Your task to perform on an android device: change notification settings in the gmail app Image 0: 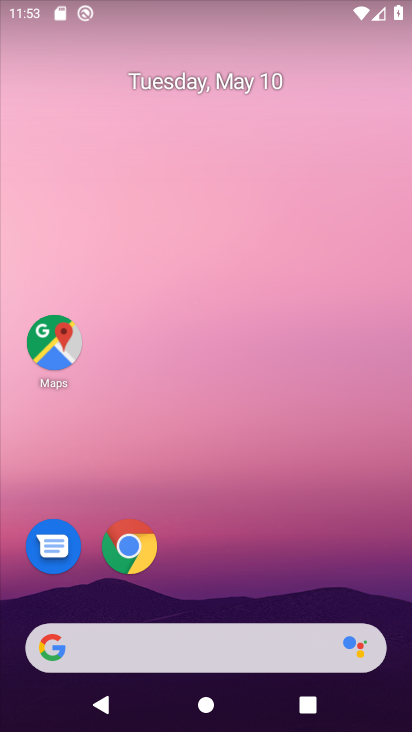
Step 0: drag from (251, 546) to (284, 268)
Your task to perform on an android device: change notification settings in the gmail app Image 1: 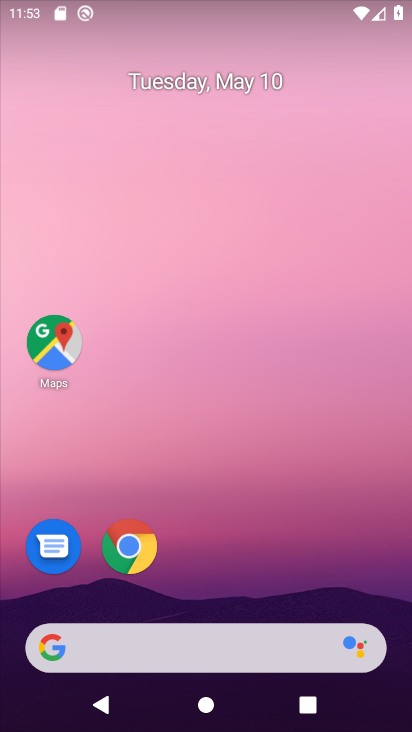
Step 1: drag from (222, 596) to (226, 296)
Your task to perform on an android device: change notification settings in the gmail app Image 2: 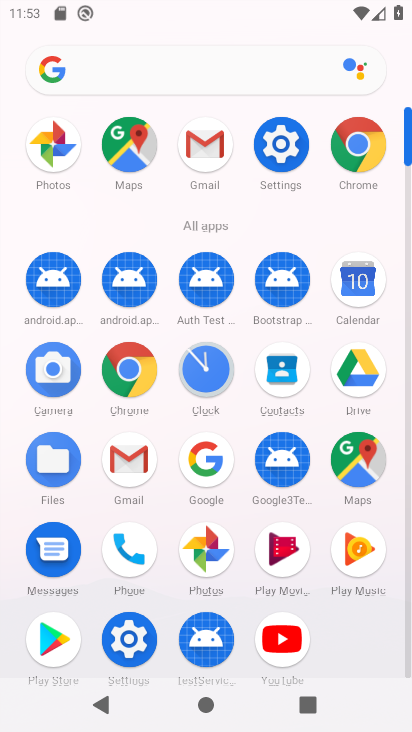
Step 2: click (196, 140)
Your task to perform on an android device: change notification settings in the gmail app Image 3: 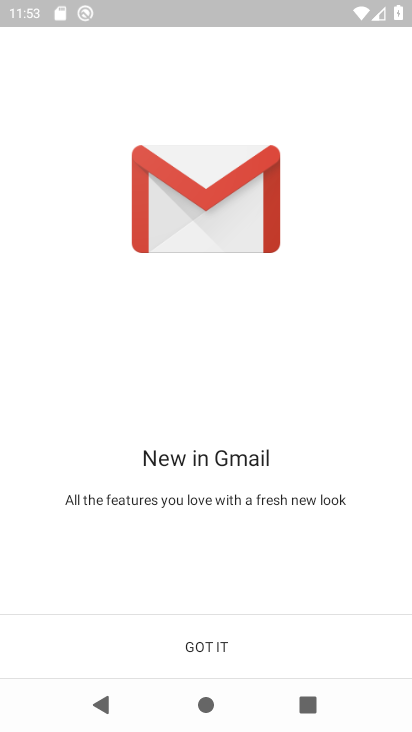
Step 3: click (231, 635)
Your task to perform on an android device: change notification settings in the gmail app Image 4: 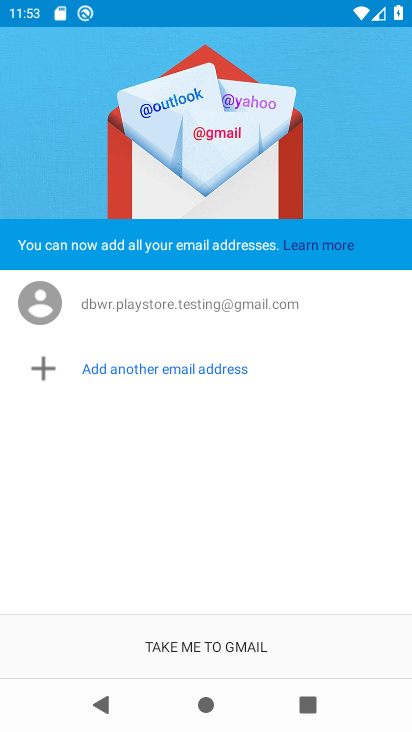
Step 4: click (228, 640)
Your task to perform on an android device: change notification settings in the gmail app Image 5: 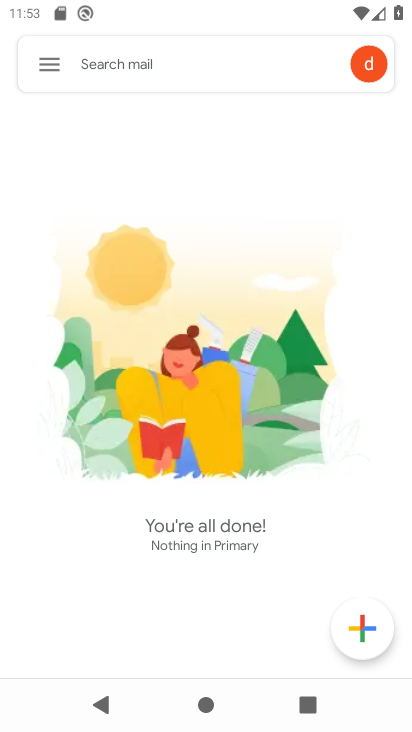
Step 5: click (38, 54)
Your task to perform on an android device: change notification settings in the gmail app Image 6: 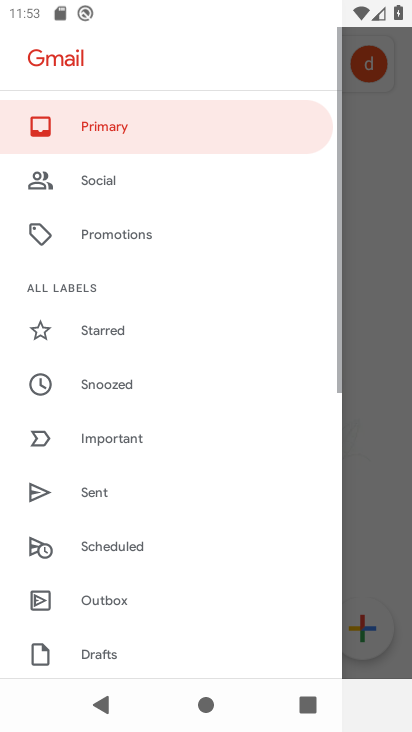
Step 6: drag from (116, 653) to (169, 202)
Your task to perform on an android device: change notification settings in the gmail app Image 7: 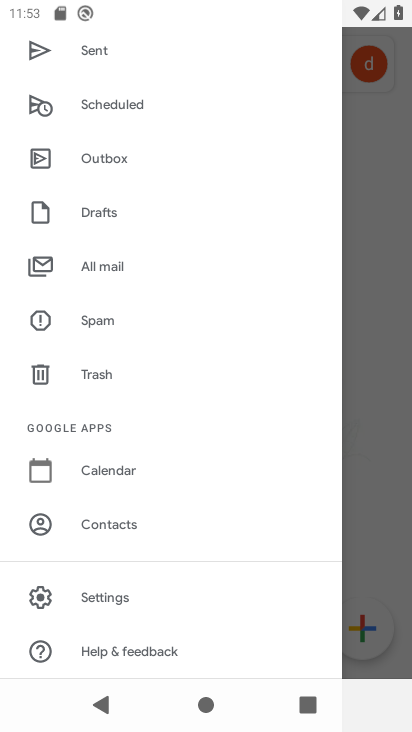
Step 7: click (132, 603)
Your task to perform on an android device: change notification settings in the gmail app Image 8: 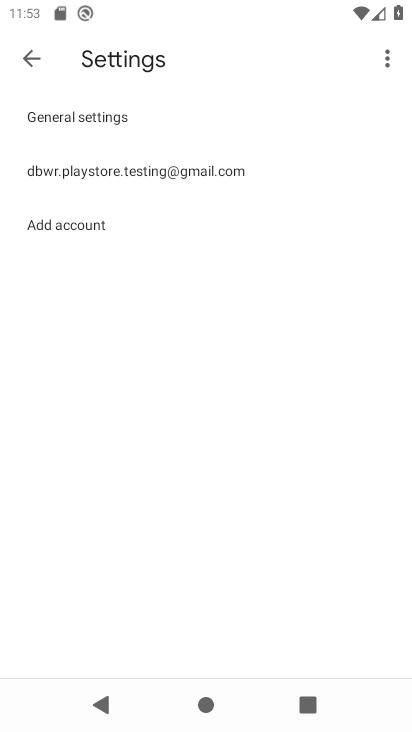
Step 8: click (122, 161)
Your task to perform on an android device: change notification settings in the gmail app Image 9: 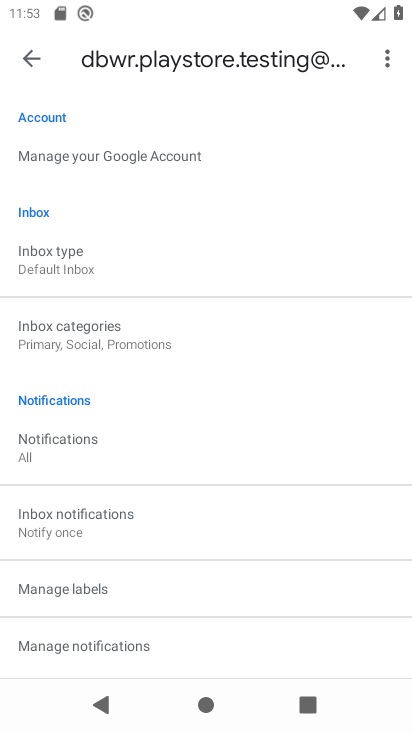
Step 9: click (70, 452)
Your task to perform on an android device: change notification settings in the gmail app Image 10: 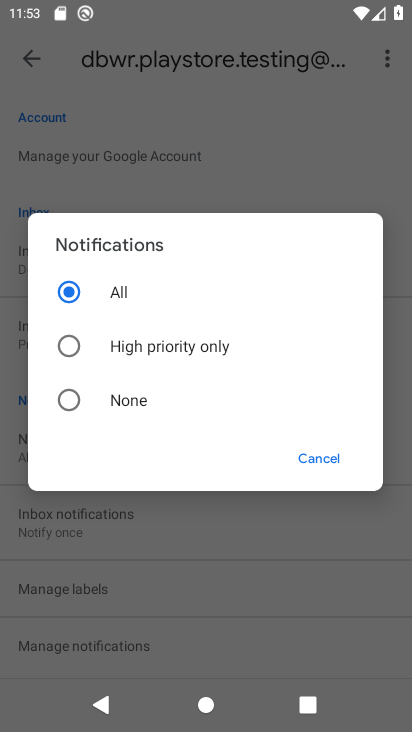
Step 10: click (124, 398)
Your task to perform on an android device: change notification settings in the gmail app Image 11: 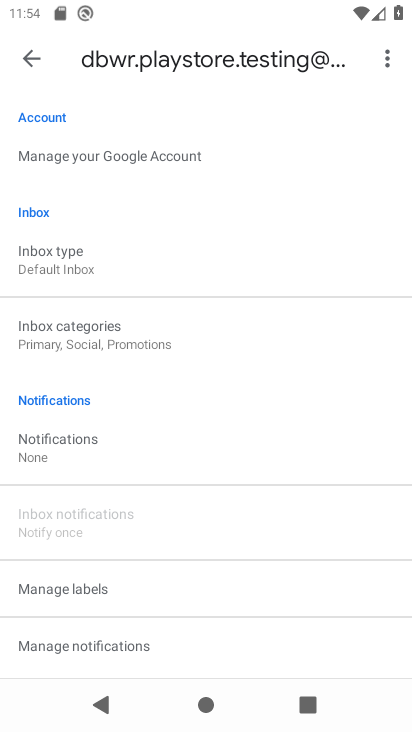
Step 11: task complete